Your task to perform on an android device: delete location history Image 0: 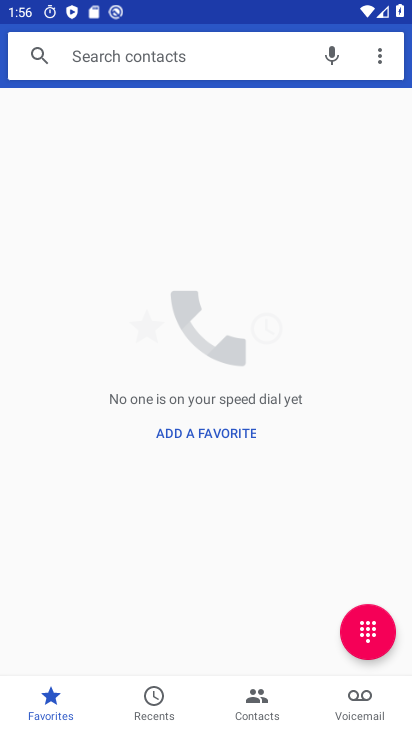
Step 0: press home button
Your task to perform on an android device: delete location history Image 1: 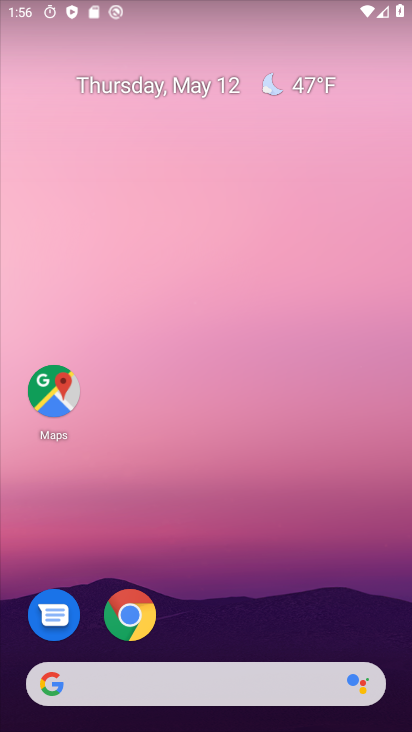
Step 1: drag from (341, 654) to (211, 77)
Your task to perform on an android device: delete location history Image 2: 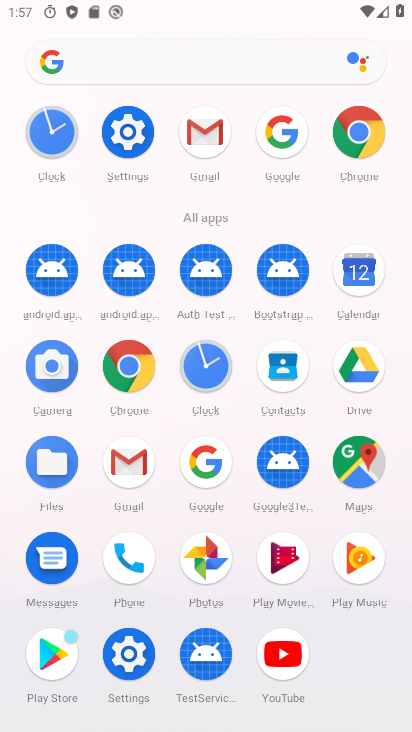
Step 2: click (133, 132)
Your task to perform on an android device: delete location history Image 3: 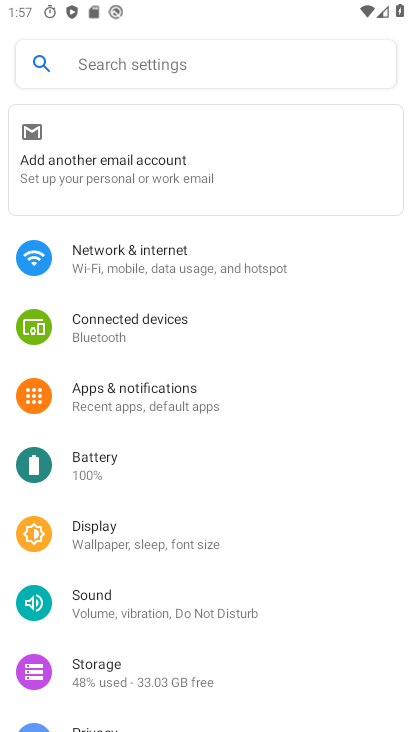
Step 3: drag from (158, 564) to (145, 77)
Your task to perform on an android device: delete location history Image 4: 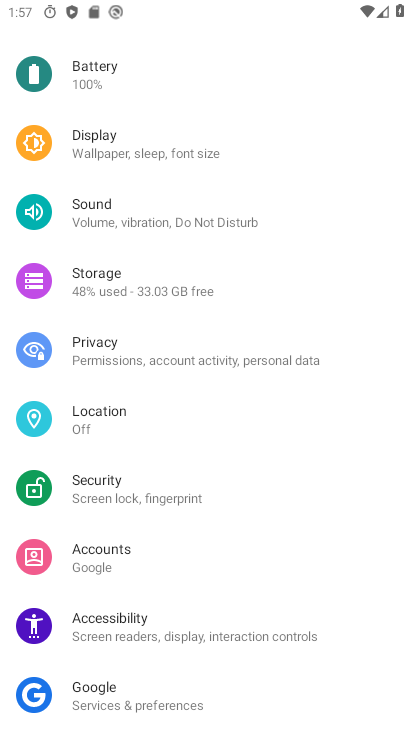
Step 4: click (129, 417)
Your task to perform on an android device: delete location history Image 5: 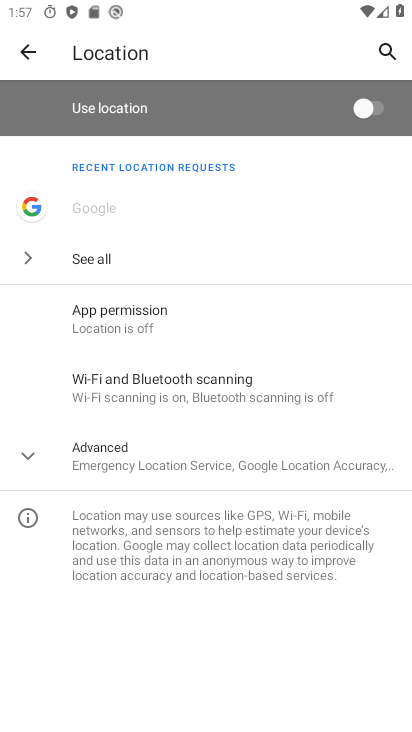
Step 5: click (119, 437)
Your task to perform on an android device: delete location history Image 6: 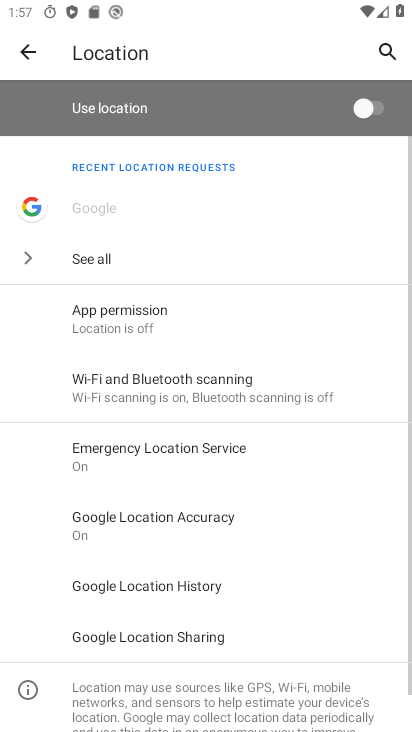
Step 6: click (174, 589)
Your task to perform on an android device: delete location history Image 7: 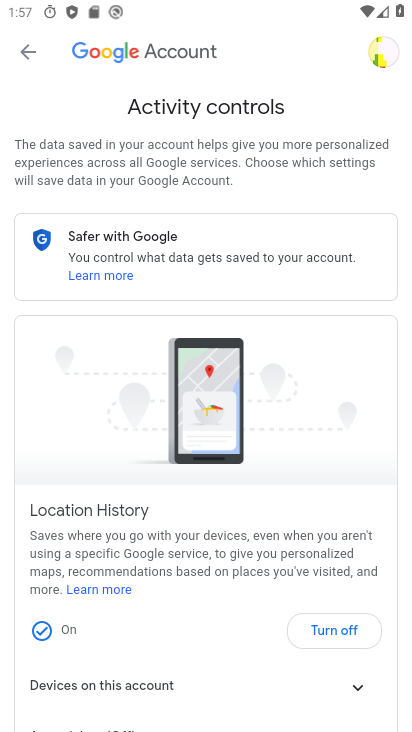
Step 7: drag from (224, 621) to (231, 40)
Your task to perform on an android device: delete location history Image 8: 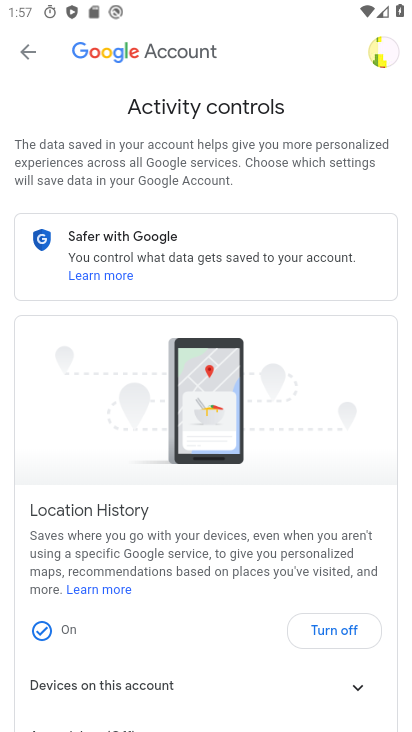
Step 8: drag from (180, 638) to (176, 333)
Your task to perform on an android device: delete location history Image 9: 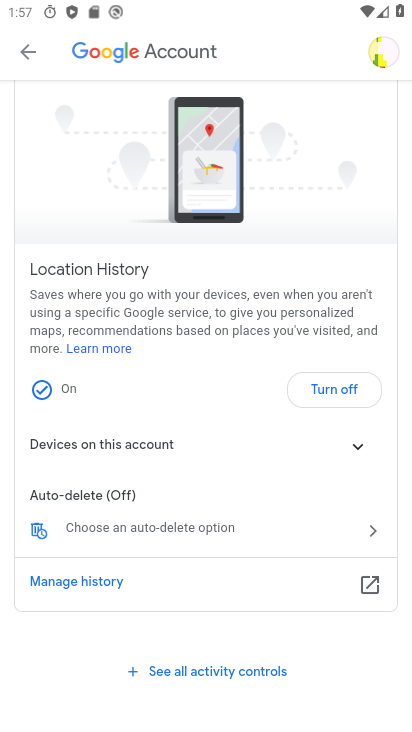
Step 9: click (34, 537)
Your task to perform on an android device: delete location history Image 10: 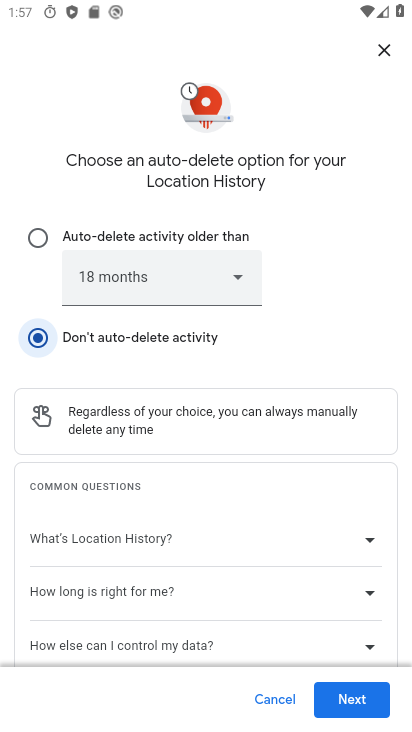
Step 10: click (361, 706)
Your task to perform on an android device: delete location history Image 11: 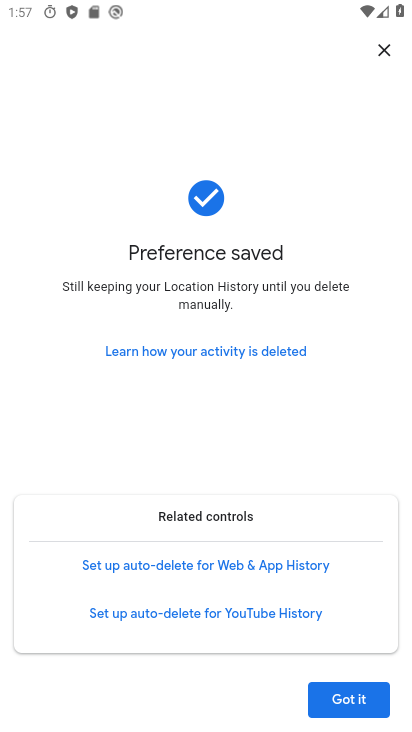
Step 11: click (361, 706)
Your task to perform on an android device: delete location history Image 12: 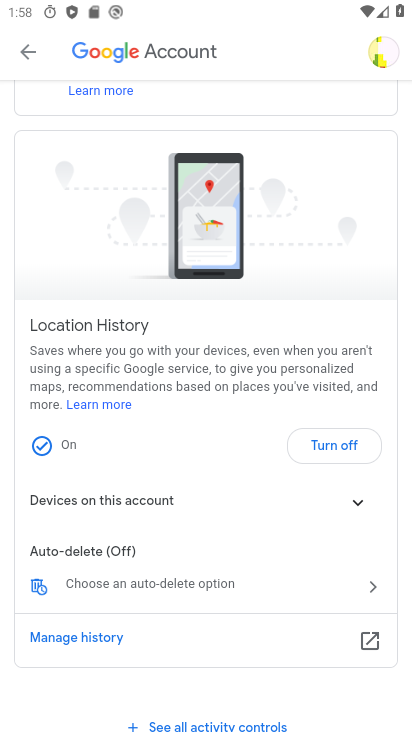
Step 12: task complete